Your task to perform on an android device: turn off notifications settings in the gmail app Image 0: 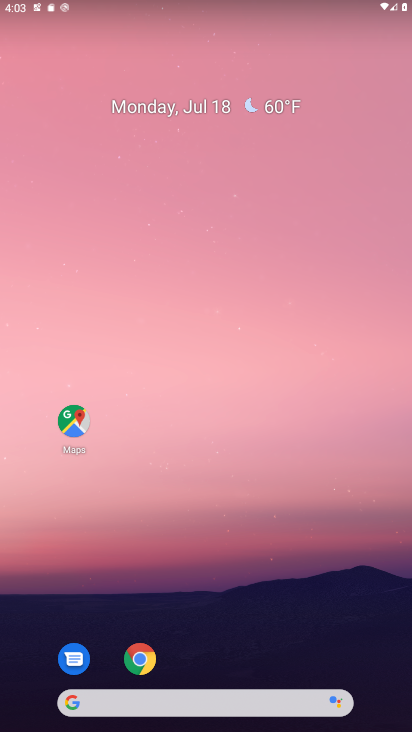
Step 0: drag from (200, 690) to (285, 17)
Your task to perform on an android device: turn off notifications settings in the gmail app Image 1: 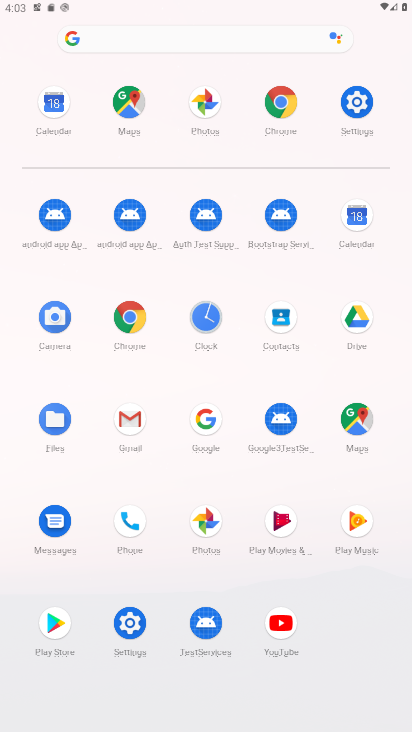
Step 1: click (127, 416)
Your task to perform on an android device: turn off notifications settings in the gmail app Image 2: 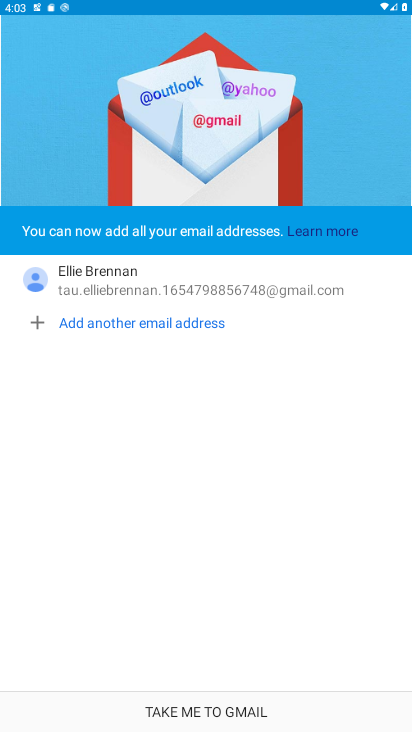
Step 2: click (237, 709)
Your task to perform on an android device: turn off notifications settings in the gmail app Image 3: 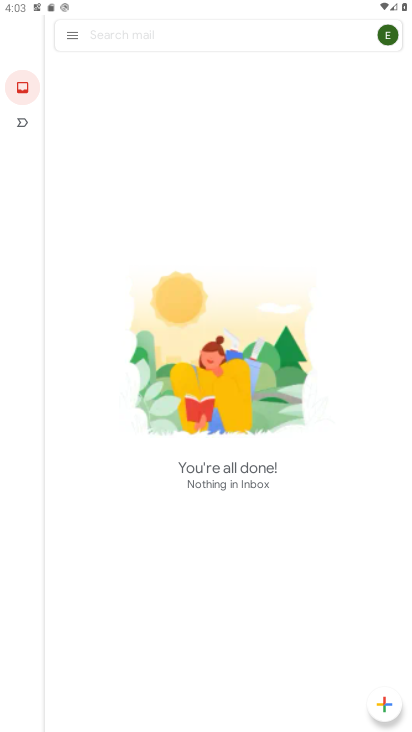
Step 3: click (63, 32)
Your task to perform on an android device: turn off notifications settings in the gmail app Image 4: 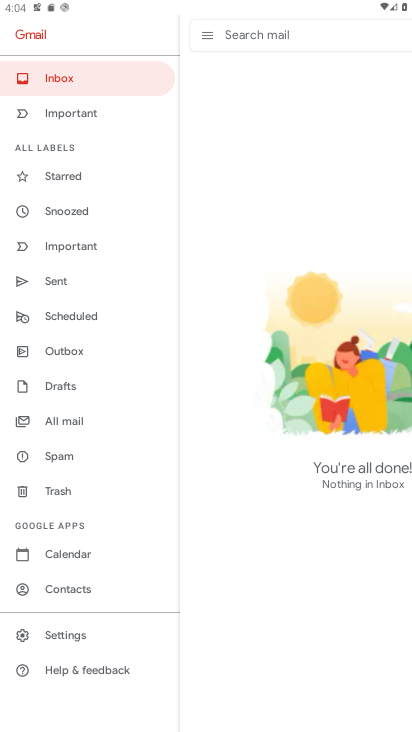
Step 4: click (93, 640)
Your task to perform on an android device: turn off notifications settings in the gmail app Image 5: 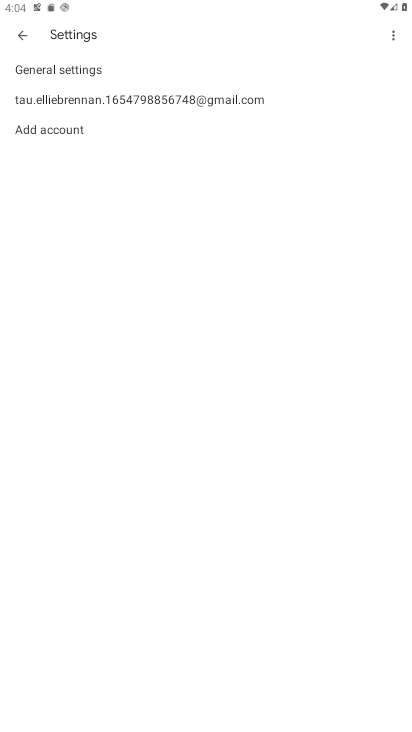
Step 5: click (92, 96)
Your task to perform on an android device: turn off notifications settings in the gmail app Image 6: 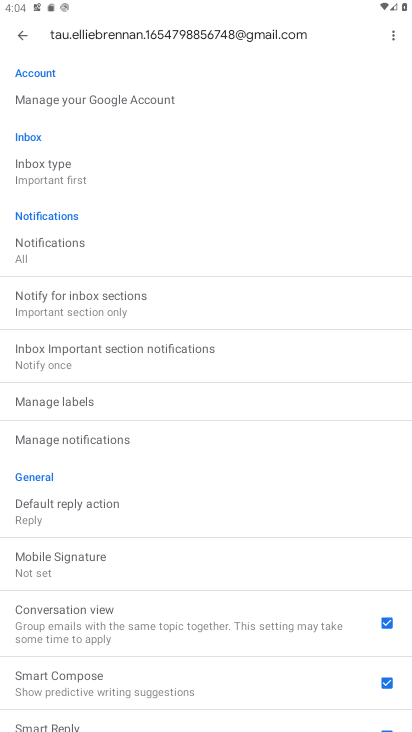
Step 6: click (100, 431)
Your task to perform on an android device: turn off notifications settings in the gmail app Image 7: 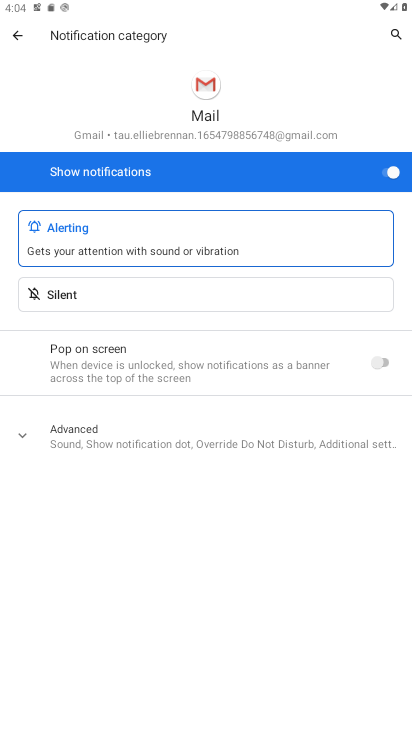
Step 7: click (396, 169)
Your task to perform on an android device: turn off notifications settings in the gmail app Image 8: 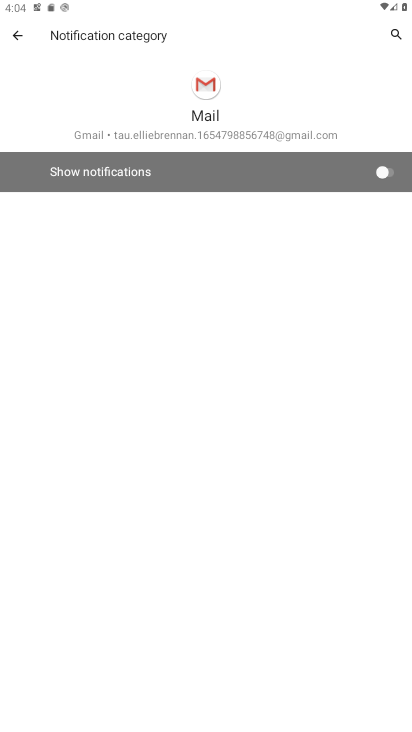
Step 8: task complete